Your task to perform on an android device: Open the phone app and click the voicemail tab. Image 0: 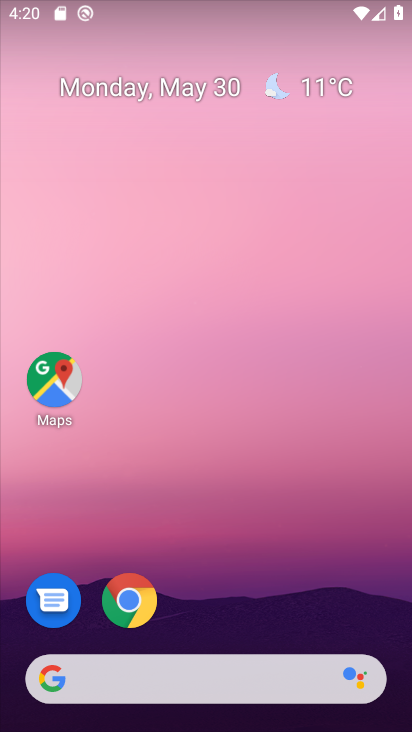
Step 0: drag from (270, 474) to (39, 207)
Your task to perform on an android device: Open the phone app and click the voicemail tab. Image 1: 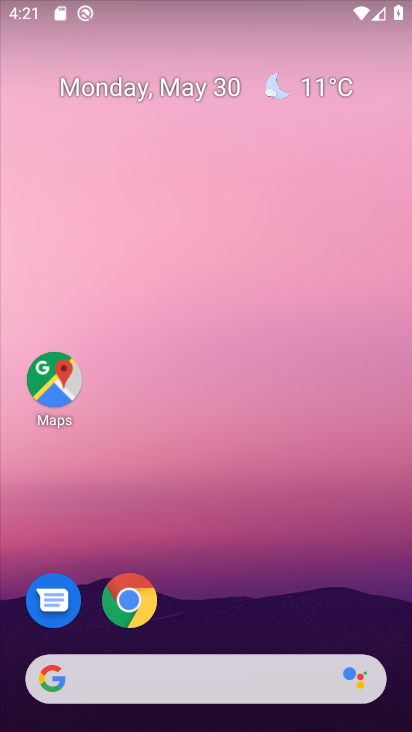
Step 1: drag from (295, 489) to (276, 98)
Your task to perform on an android device: Open the phone app and click the voicemail tab. Image 2: 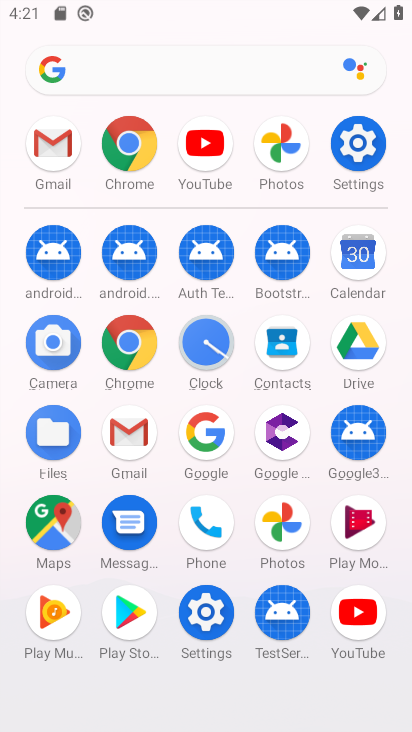
Step 2: click (201, 534)
Your task to perform on an android device: Open the phone app and click the voicemail tab. Image 3: 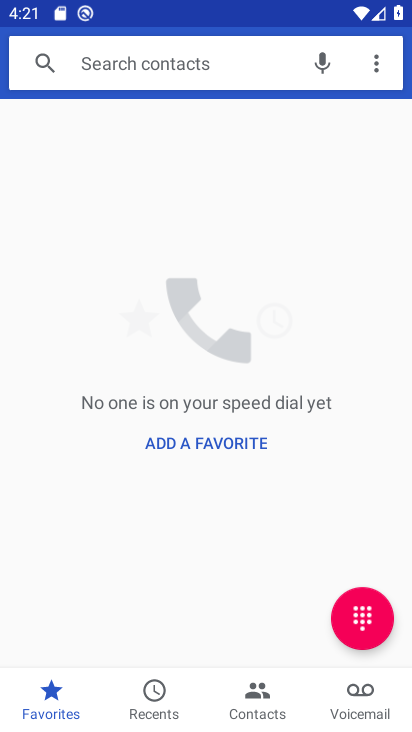
Step 3: click (376, 730)
Your task to perform on an android device: Open the phone app and click the voicemail tab. Image 4: 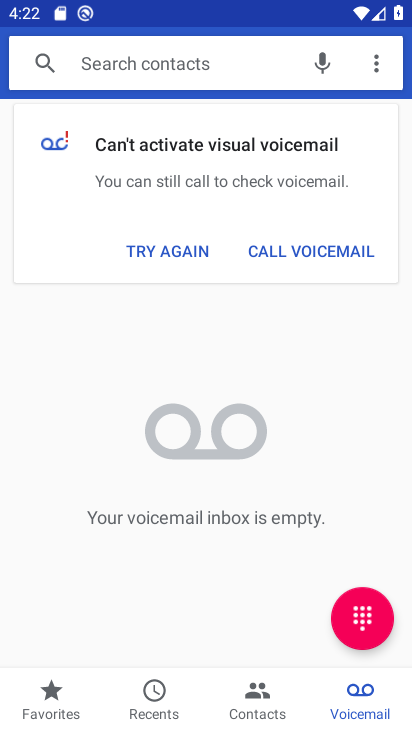
Step 4: task complete